Your task to perform on an android device: open app "Google Find My Device" Image 0: 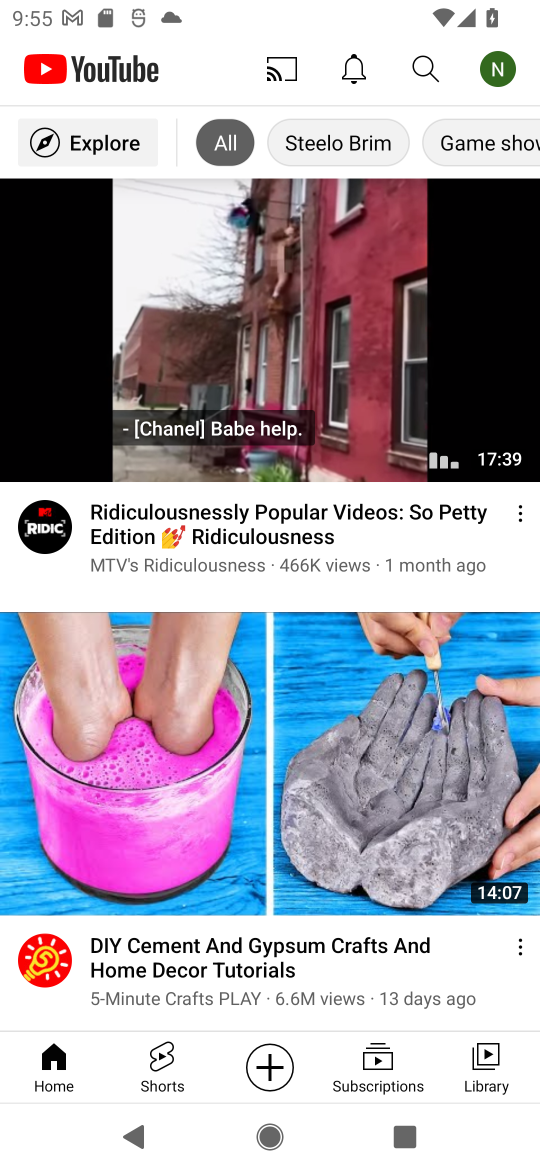
Step 0: press home button
Your task to perform on an android device: open app "Google Find My Device" Image 1: 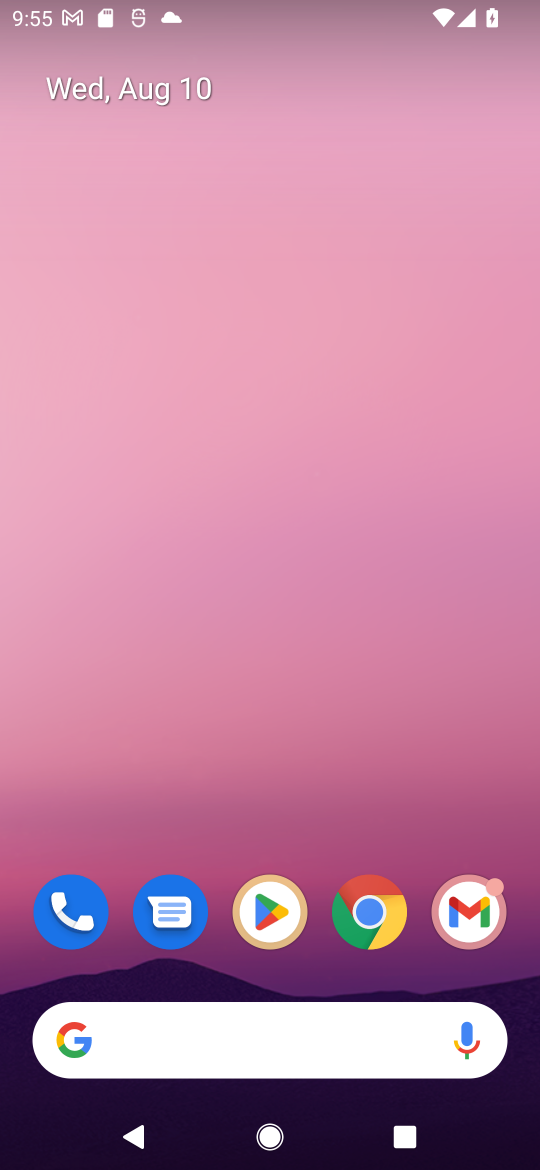
Step 1: drag from (512, 981) to (371, 21)
Your task to perform on an android device: open app "Google Find My Device" Image 2: 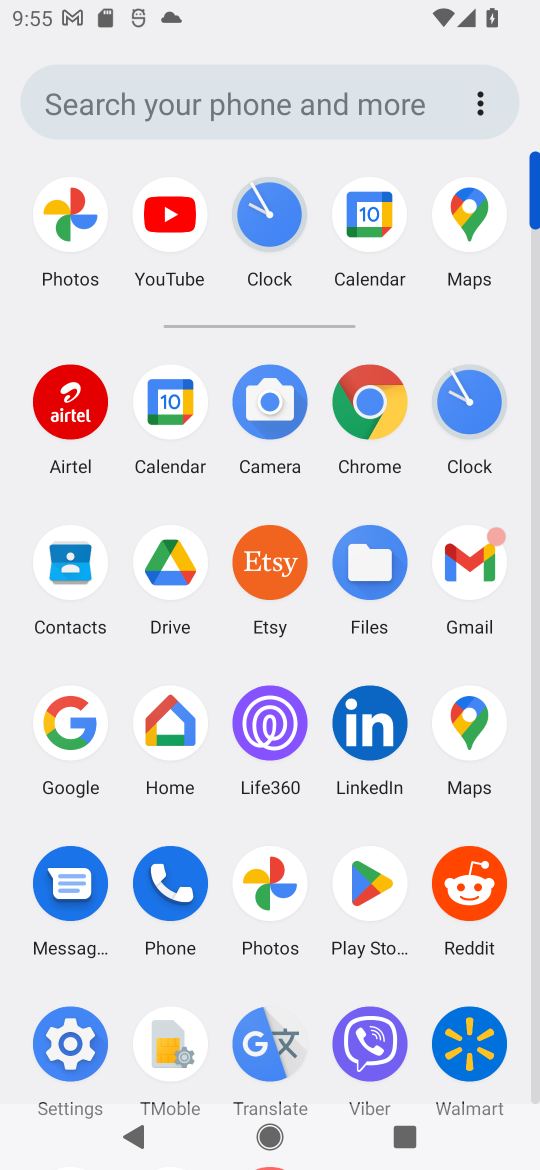
Step 2: click (351, 893)
Your task to perform on an android device: open app "Google Find My Device" Image 3: 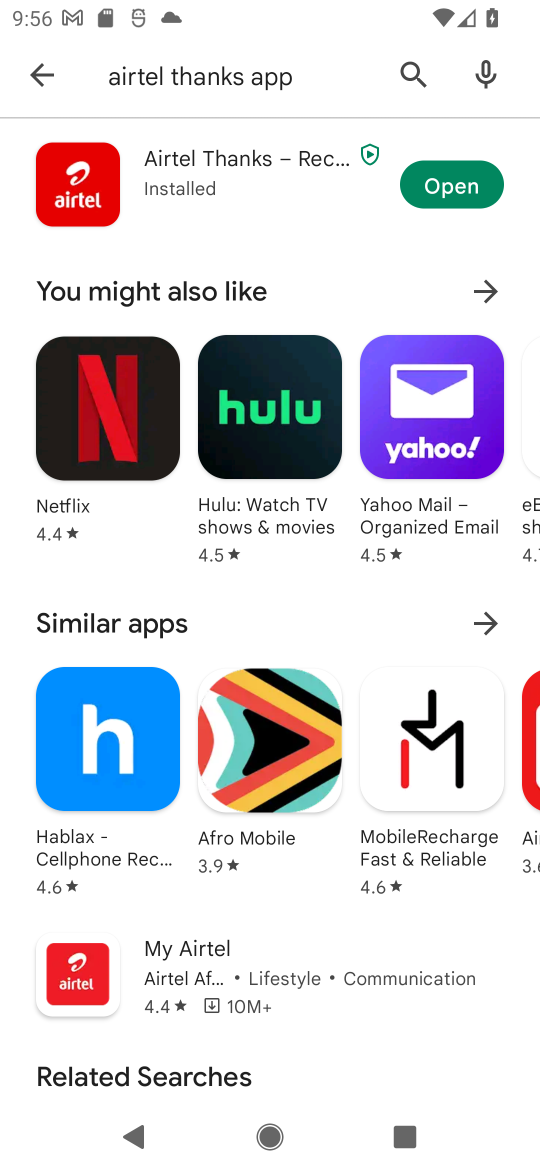
Step 3: press back button
Your task to perform on an android device: open app "Google Find My Device" Image 4: 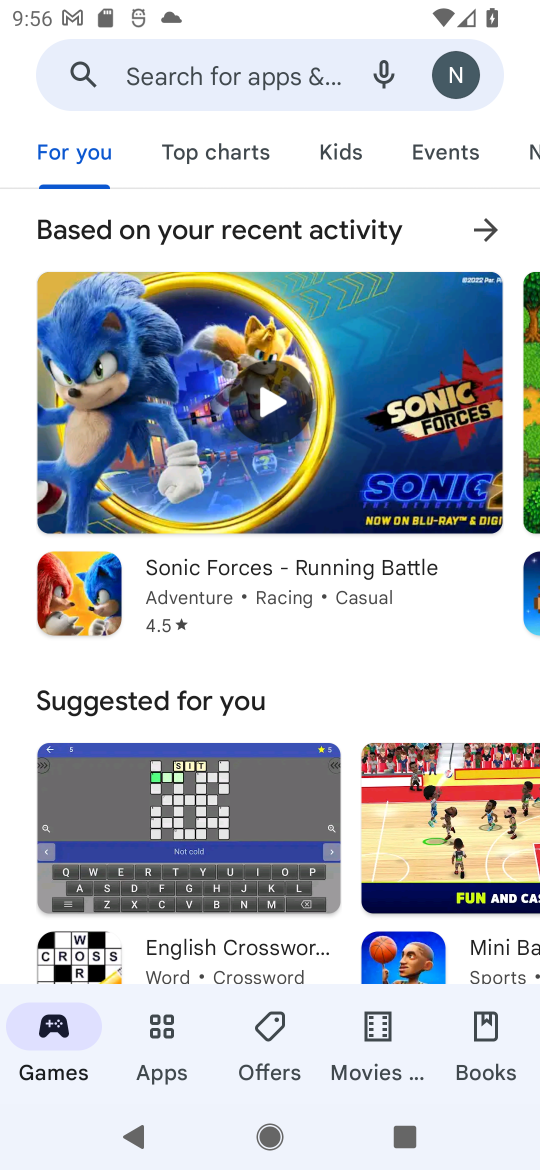
Step 4: click (133, 66)
Your task to perform on an android device: open app "Google Find My Device" Image 5: 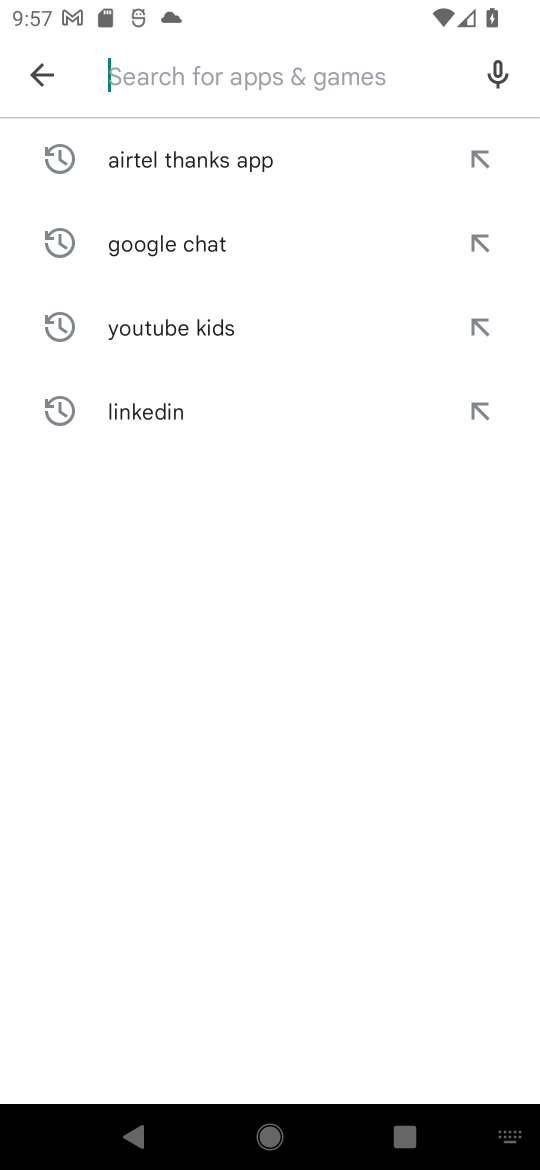
Step 5: type "Google Find My Device"
Your task to perform on an android device: open app "Google Find My Device" Image 6: 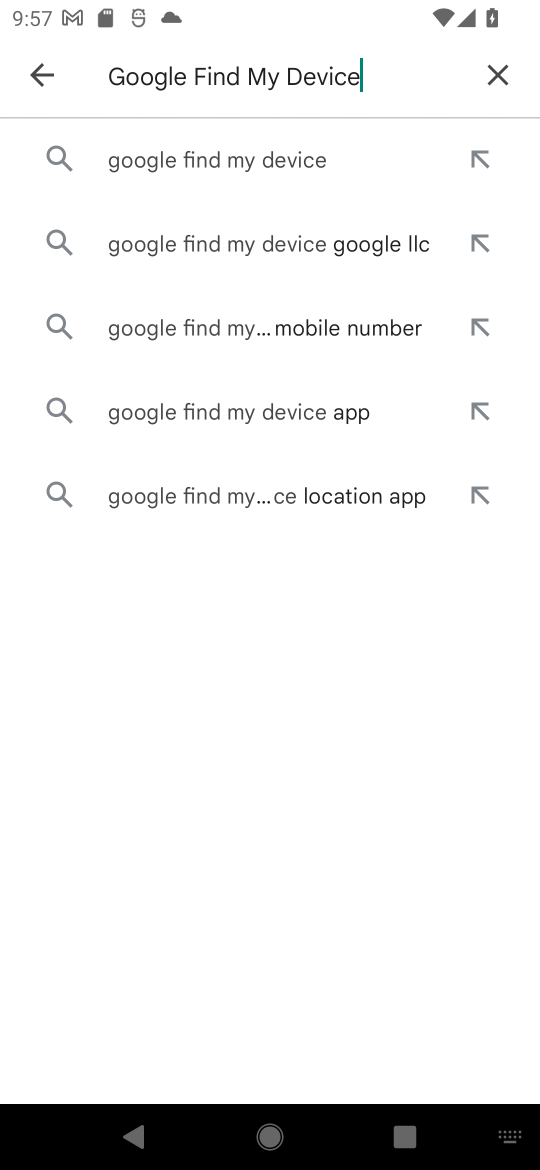
Step 6: click (206, 166)
Your task to perform on an android device: open app "Google Find My Device" Image 7: 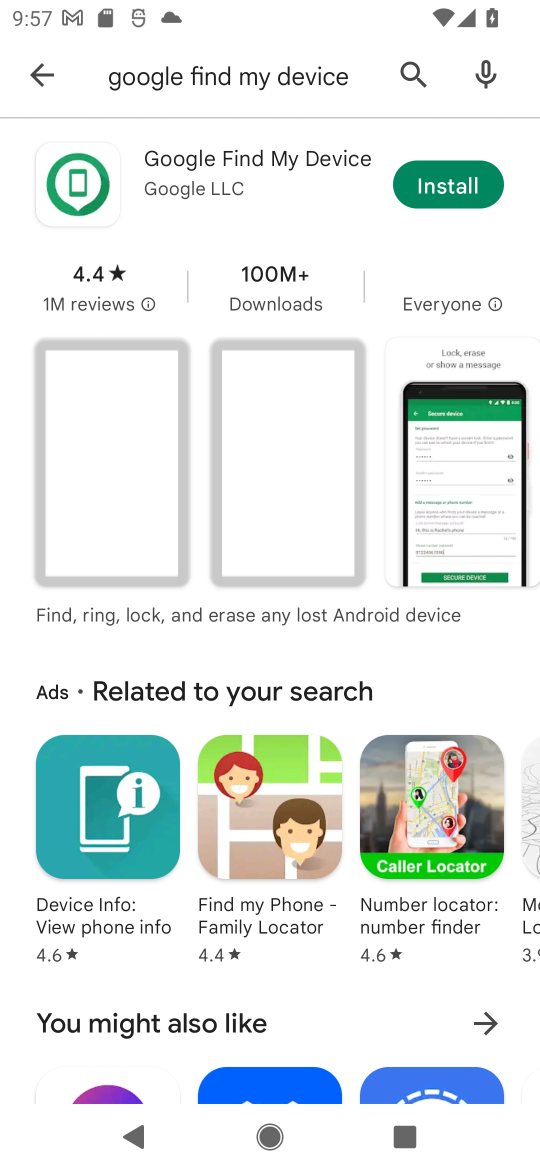
Step 7: task complete